Your task to perform on an android device: turn smart compose on in the gmail app Image 0: 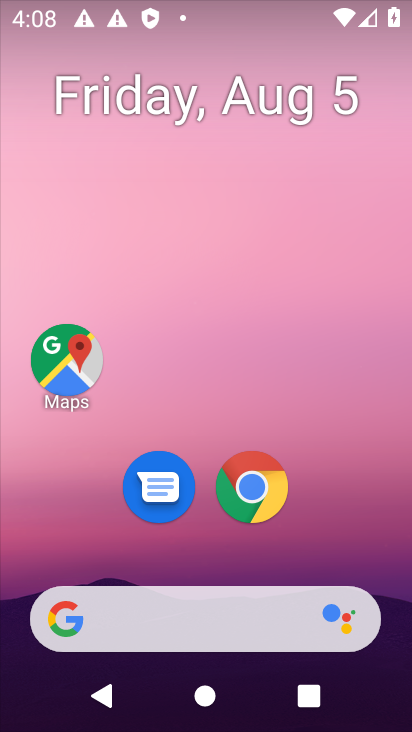
Step 0: drag from (345, 488) to (204, 77)
Your task to perform on an android device: turn smart compose on in the gmail app Image 1: 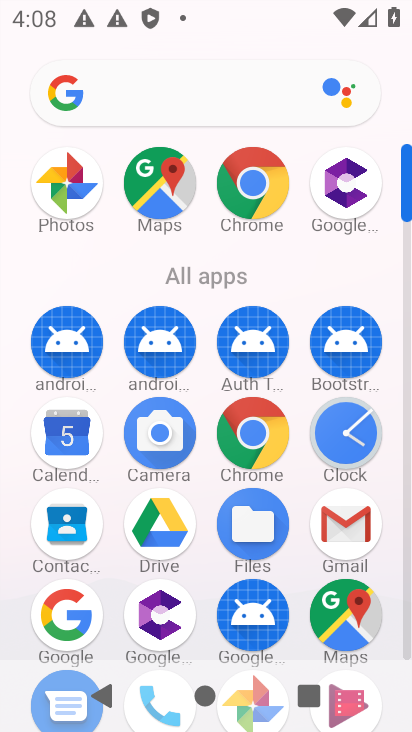
Step 1: click (333, 528)
Your task to perform on an android device: turn smart compose on in the gmail app Image 2: 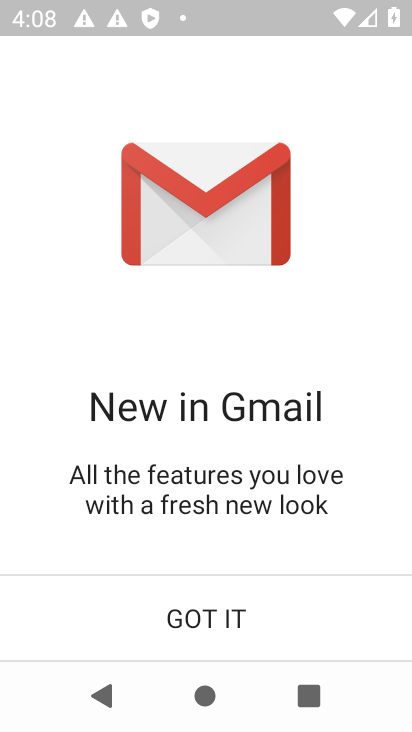
Step 2: click (226, 633)
Your task to perform on an android device: turn smart compose on in the gmail app Image 3: 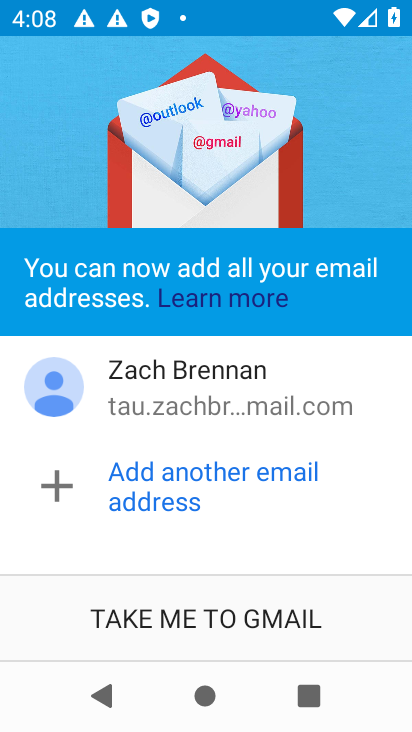
Step 3: click (219, 616)
Your task to perform on an android device: turn smart compose on in the gmail app Image 4: 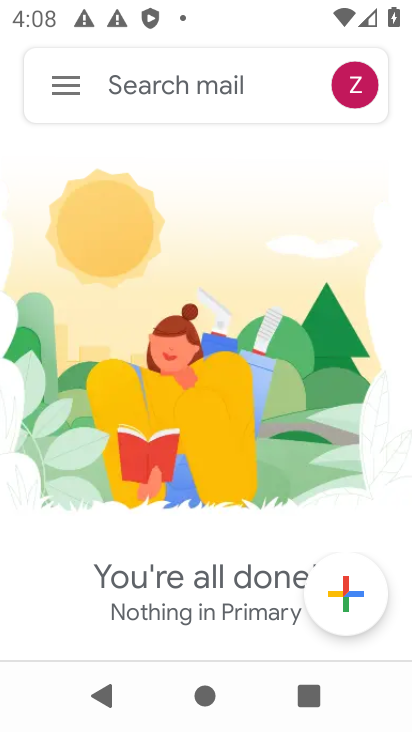
Step 4: task complete